Your task to perform on an android device: show emergency info Image 0: 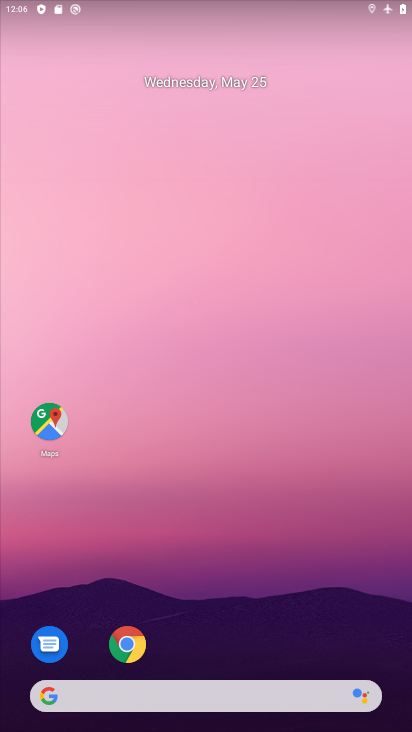
Step 0: drag from (231, 571) to (198, 77)
Your task to perform on an android device: show emergency info Image 1: 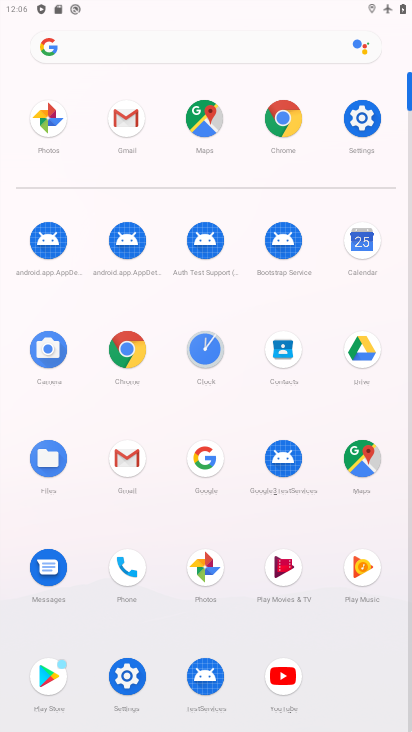
Step 1: click (351, 113)
Your task to perform on an android device: show emergency info Image 2: 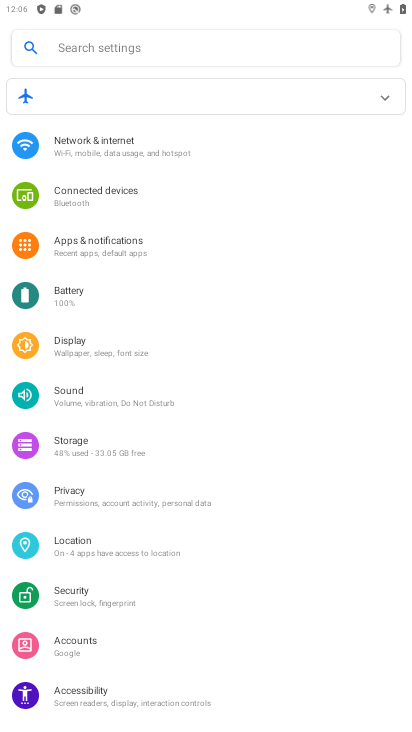
Step 2: drag from (219, 592) to (163, 131)
Your task to perform on an android device: show emergency info Image 3: 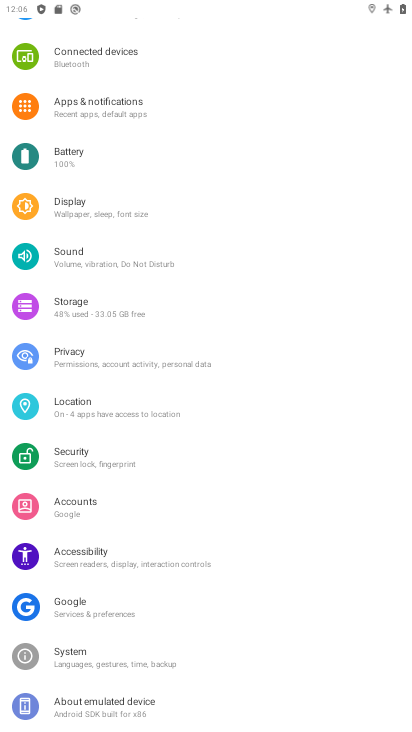
Step 3: click (100, 702)
Your task to perform on an android device: show emergency info Image 4: 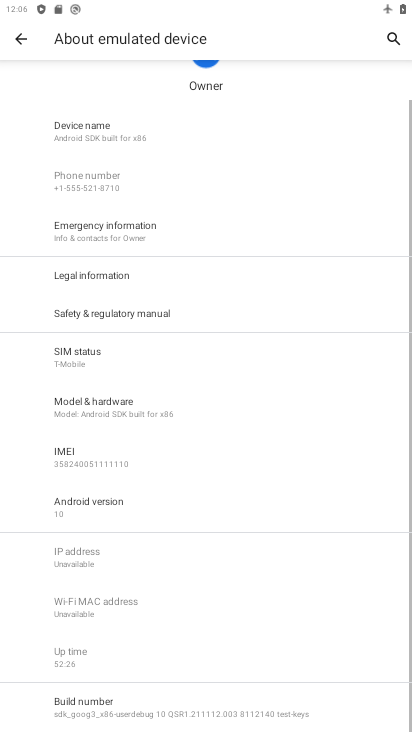
Step 4: click (124, 214)
Your task to perform on an android device: show emergency info Image 5: 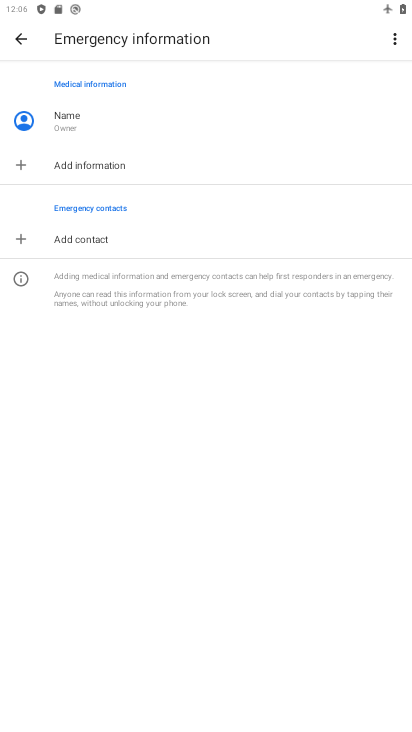
Step 5: task complete